Your task to perform on an android device: toggle show notifications on the lock screen Image 0: 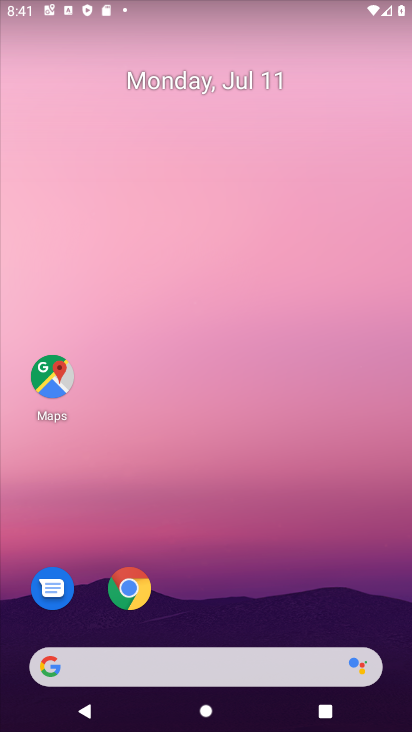
Step 0: drag from (384, 406) to (357, 37)
Your task to perform on an android device: toggle show notifications on the lock screen Image 1: 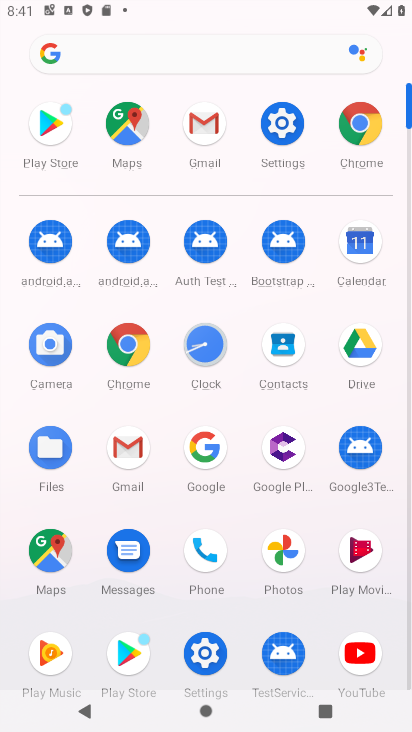
Step 1: click (292, 120)
Your task to perform on an android device: toggle show notifications on the lock screen Image 2: 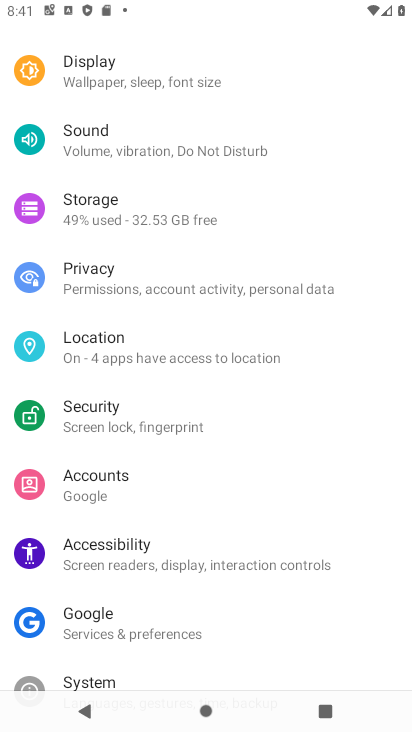
Step 2: drag from (285, 207) to (315, 422)
Your task to perform on an android device: toggle show notifications on the lock screen Image 3: 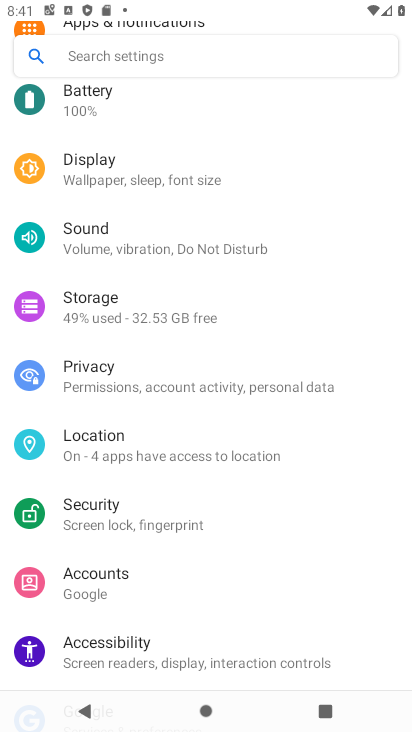
Step 3: drag from (154, 136) to (169, 437)
Your task to perform on an android device: toggle show notifications on the lock screen Image 4: 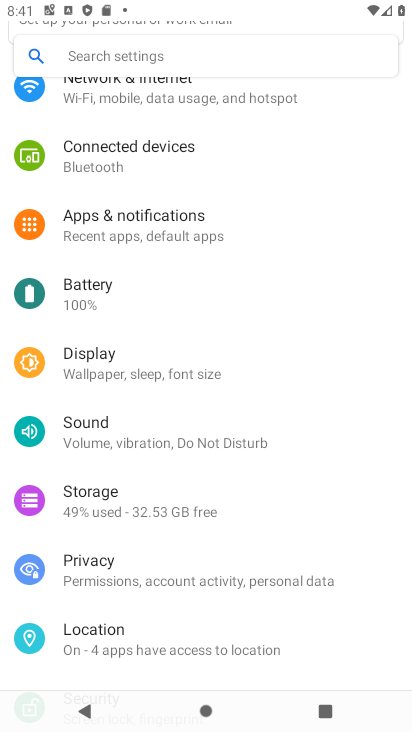
Step 4: click (169, 233)
Your task to perform on an android device: toggle show notifications on the lock screen Image 5: 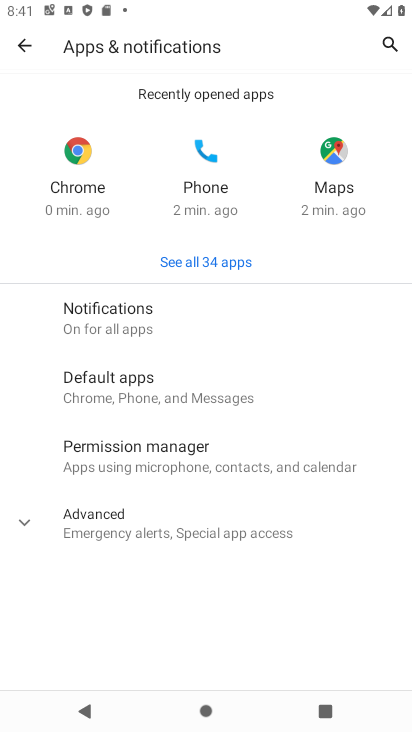
Step 5: click (170, 320)
Your task to perform on an android device: toggle show notifications on the lock screen Image 6: 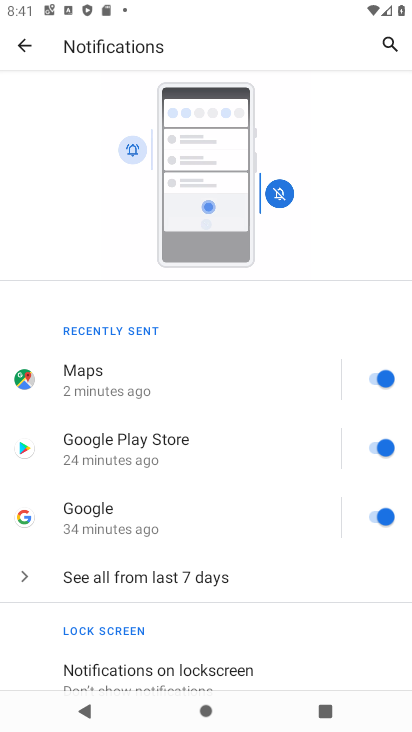
Step 6: click (174, 673)
Your task to perform on an android device: toggle show notifications on the lock screen Image 7: 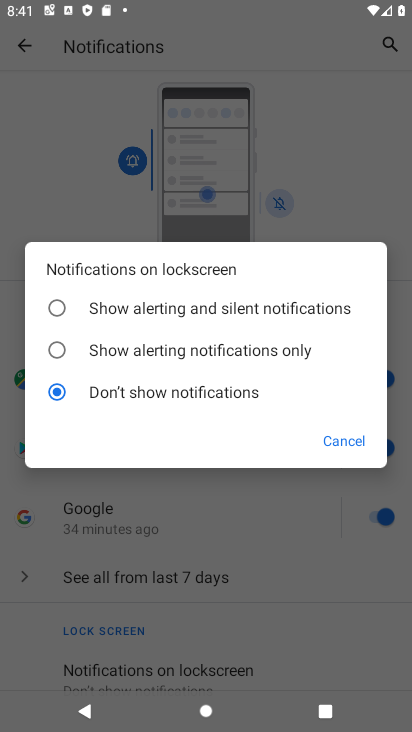
Step 7: click (58, 305)
Your task to perform on an android device: toggle show notifications on the lock screen Image 8: 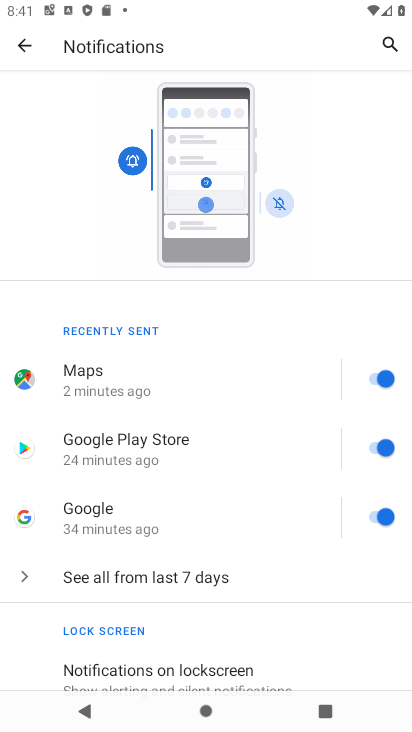
Step 8: task complete